Your task to perform on an android device: open sync settings in chrome Image 0: 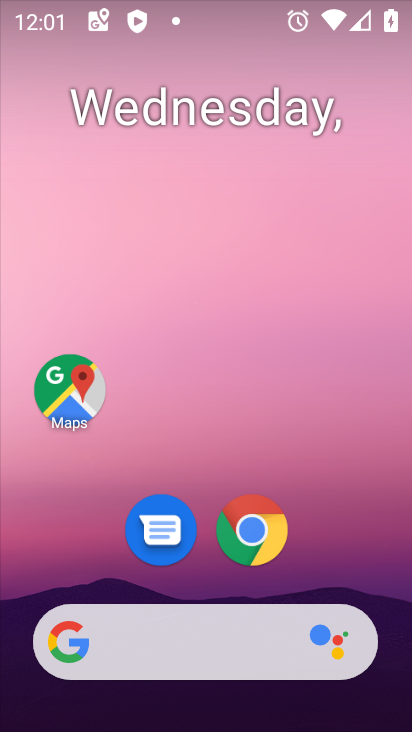
Step 0: click (252, 533)
Your task to perform on an android device: open sync settings in chrome Image 1: 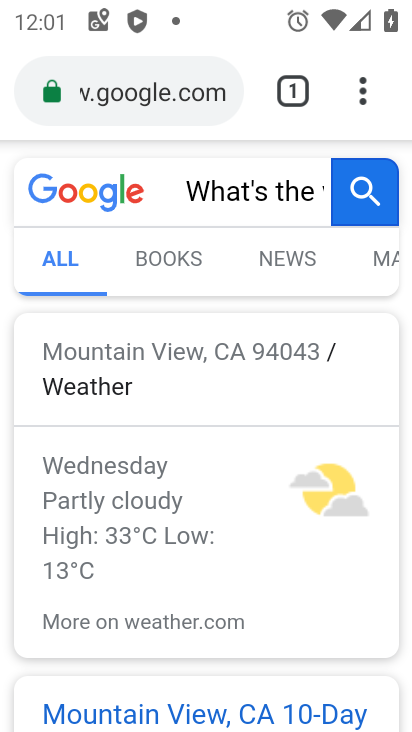
Step 1: click (362, 100)
Your task to perform on an android device: open sync settings in chrome Image 2: 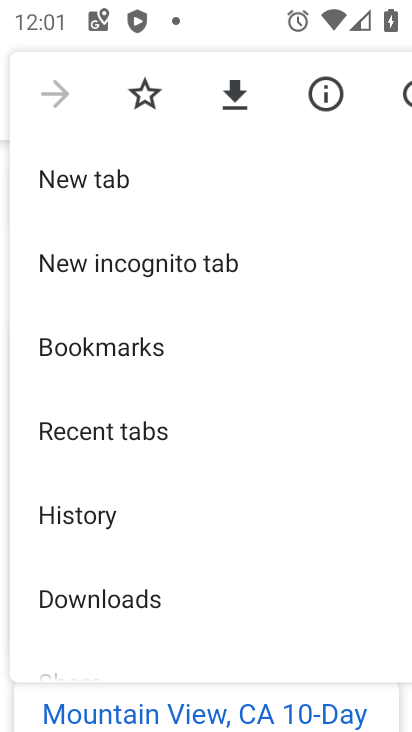
Step 2: drag from (110, 639) to (228, 322)
Your task to perform on an android device: open sync settings in chrome Image 3: 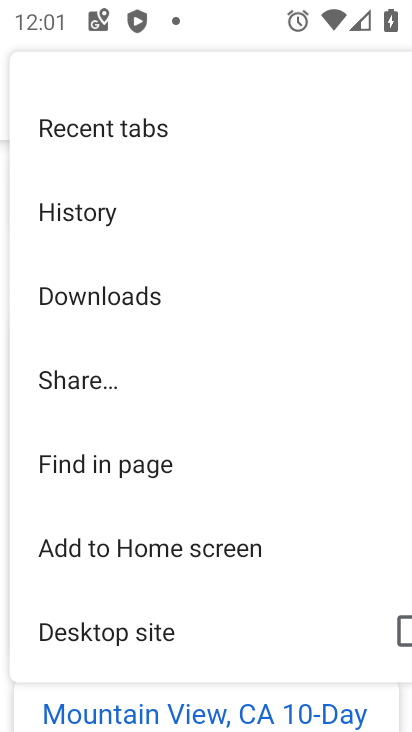
Step 3: drag from (139, 570) to (225, 222)
Your task to perform on an android device: open sync settings in chrome Image 4: 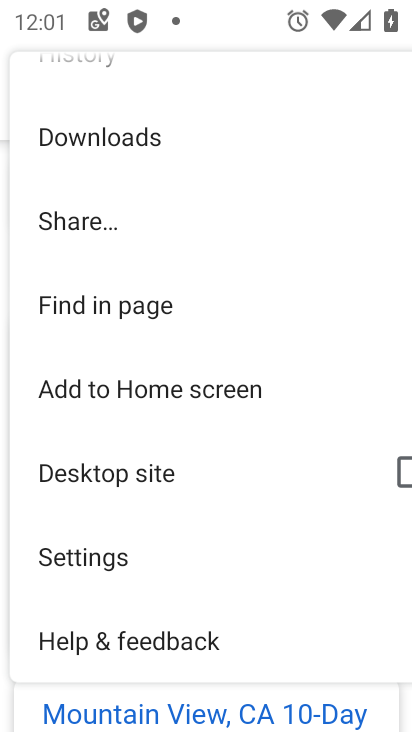
Step 4: click (104, 563)
Your task to perform on an android device: open sync settings in chrome Image 5: 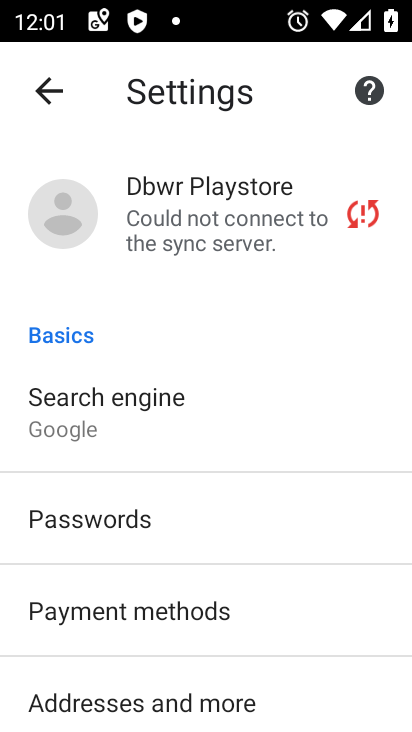
Step 5: click (283, 223)
Your task to perform on an android device: open sync settings in chrome Image 6: 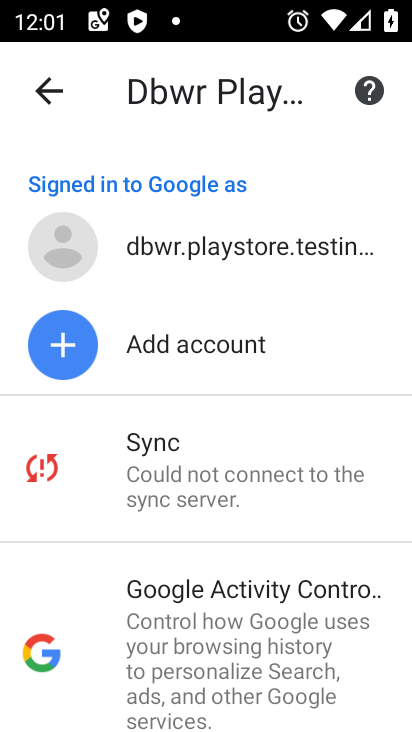
Step 6: task complete